Your task to perform on an android device: Search for razer blade on ebay.com, select the first entry, and add it to the cart. Image 0: 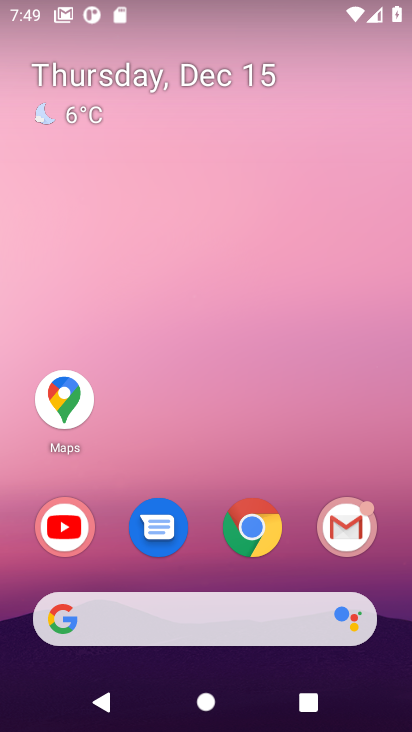
Step 0: click (245, 549)
Your task to perform on an android device: Search for razer blade on ebay.com, select the first entry, and add it to the cart. Image 1: 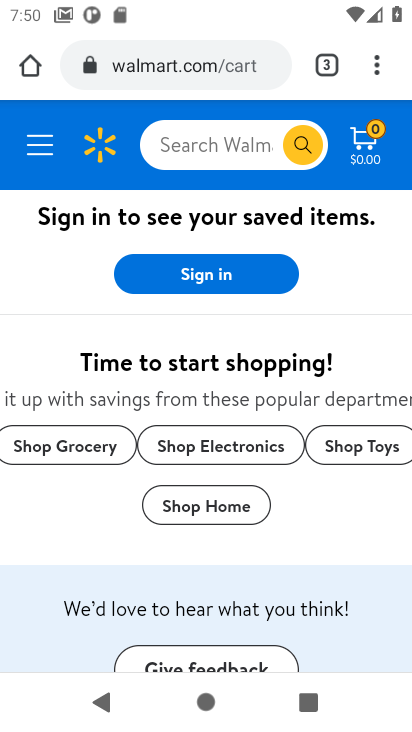
Step 1: click (165, 74)
Your task to perform on an android device: Search for razer blade on ebay.com, select the first entry, and add it to the cart. Image 2: 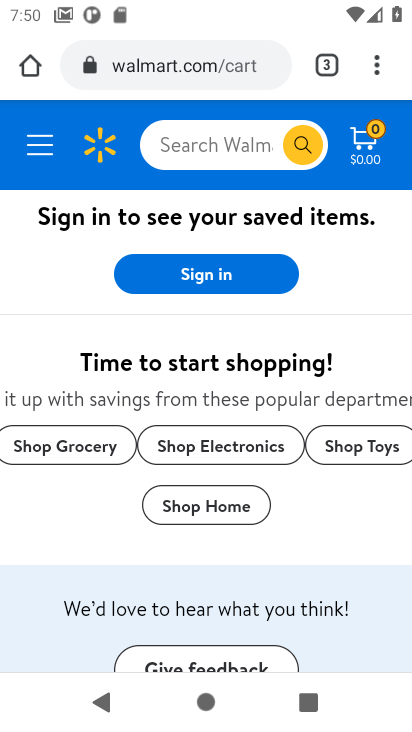
Step 2: click (165, 74)
Your task to perform on an android device: Search for razer blade on ebay.com, select the first entry, and add it to the cart. Image 3: 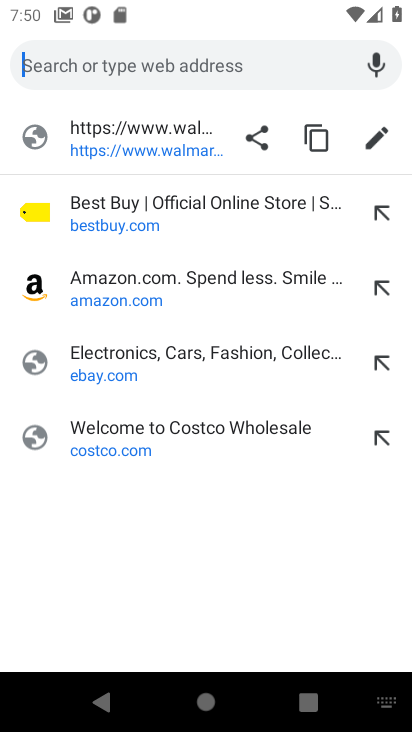
Step 3: type "ebay"
Your task to perform on an android device: Search for razer blade on ebay.com, select the first entry, and add it to the cart. Image 4: 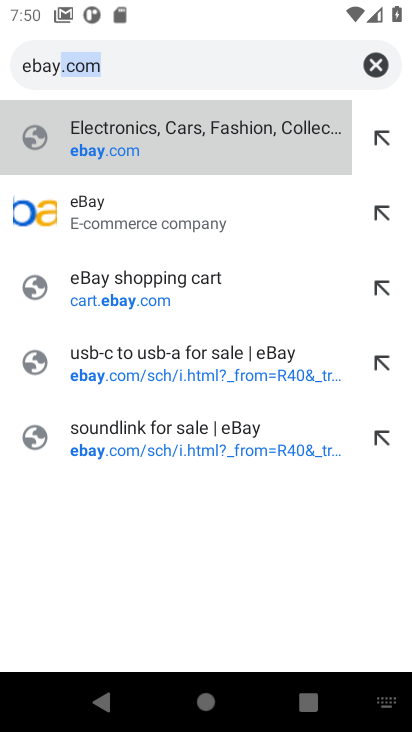
Step 4: click (151, 147)
Your task to perform on an android device: Search for razer blade on ebay.com, select the first entry, and add it to the cart. Image 5: 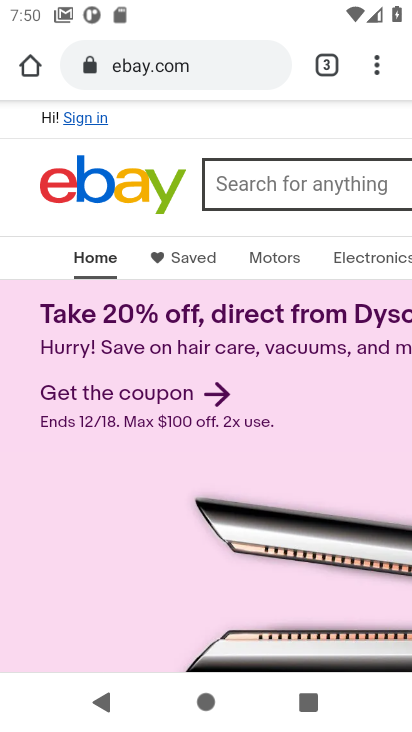
Step 5: click (275, 170)
Your task to perform on an android device: Search for razer blade on ebay.com, select the first entry, and add it to the cart. Image 6: 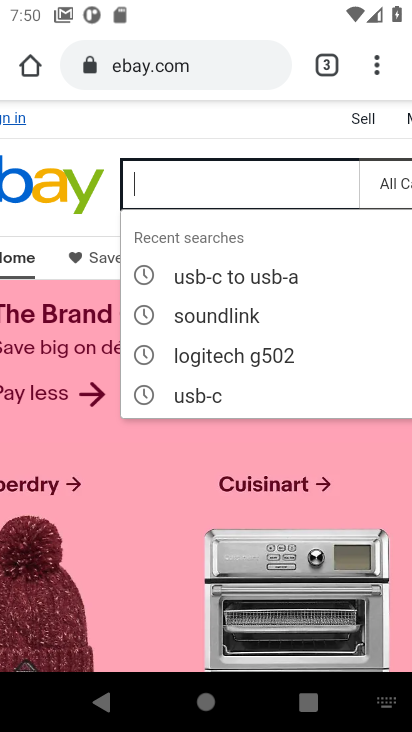
Step 6: type "razer blade"
Your task to perform on an android device: Search for razer blade on ebay.com, select the first entry, and add it to the cart. Image 7: 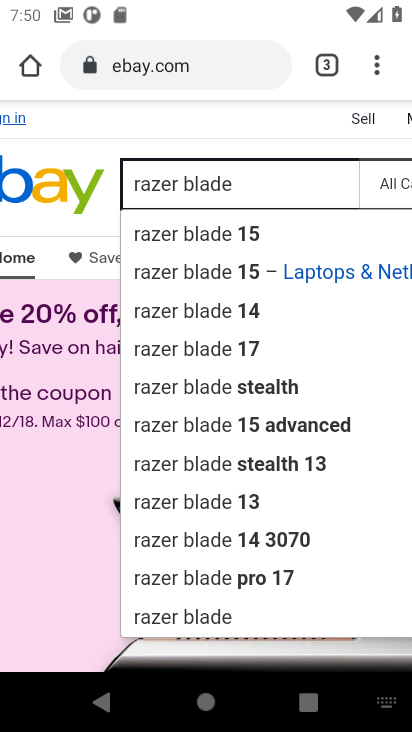
Step 7: click (168, 245)
Your task to perform on an android device: Search for razer blade on ebay.com, select the first entry, and add it to the cart. Image 8: 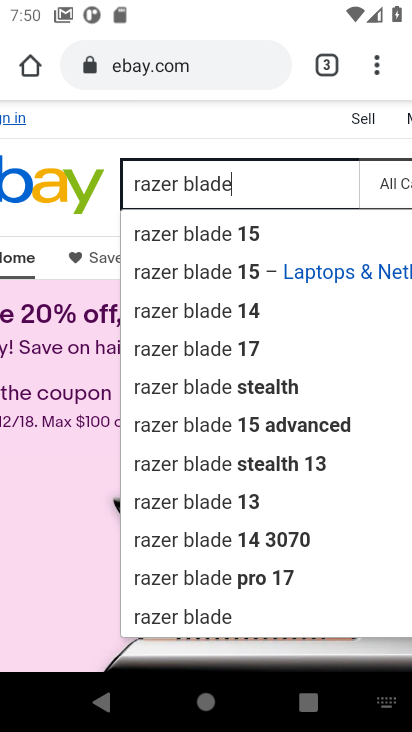
Step 8: click (168, 245)
Your task to perform on an android device: Search for razer blade on ebay.com, select the first entry, and add it to the cart. Image 9: 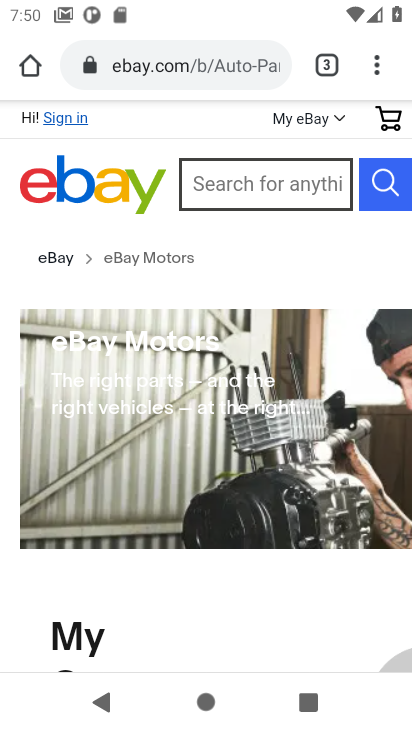
Step 9: click (213, 199)
Your task to perform on an android device: Search for razer blade on ebay.com, select the first entry, and add it to the cart. Image 10: 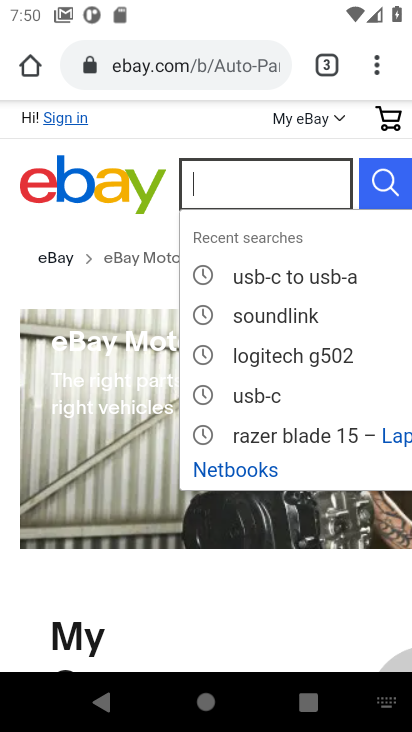
Step 10: type "razer blade"
Your task to perform on an android device: Search for razer blade on ebay.com, select the first entry, and add it to the cart. Image 11: 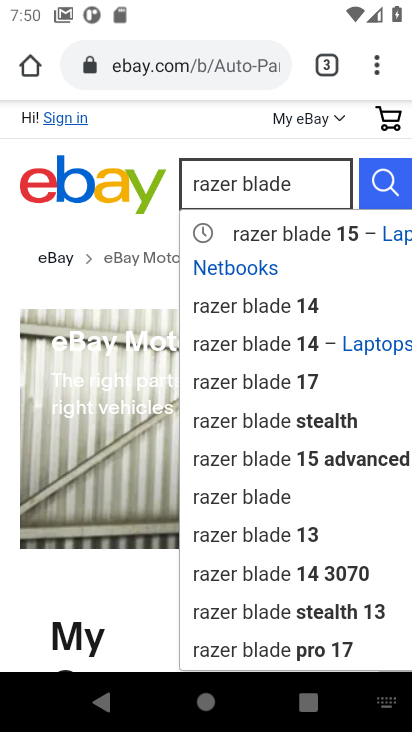
Step 11: click (387, 200)
Your task to perform on an android device: Search for razer blade on ebay.com, select the first entry, and add it to the cart. Image 12: 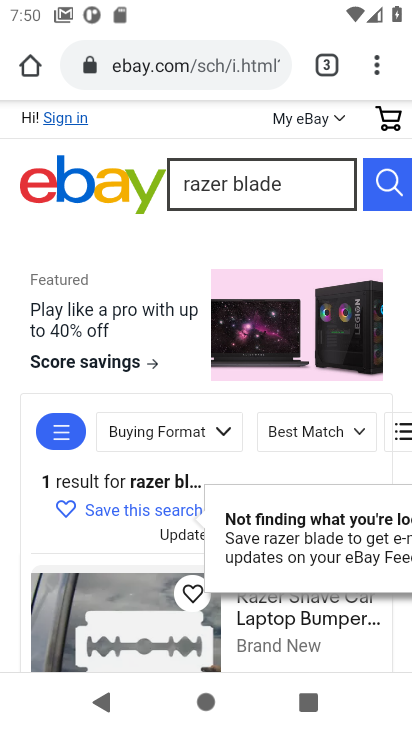
Step 12: task complete